Your task to perform on an android device: Open Reddit.com Image 0: 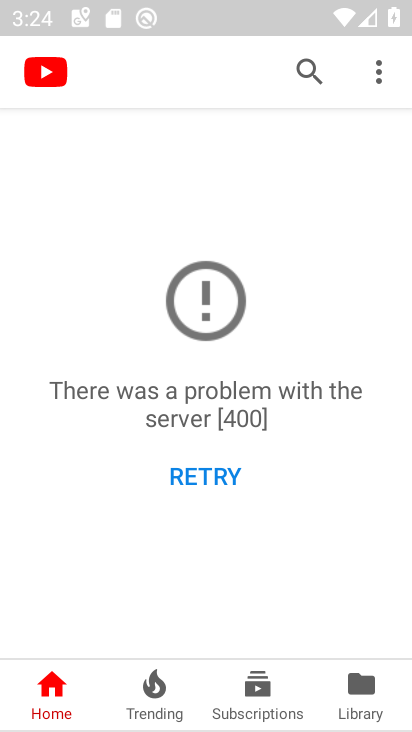
Step 0: press back button
Your task to perform on an android device: Open Reddit.com Image 1: 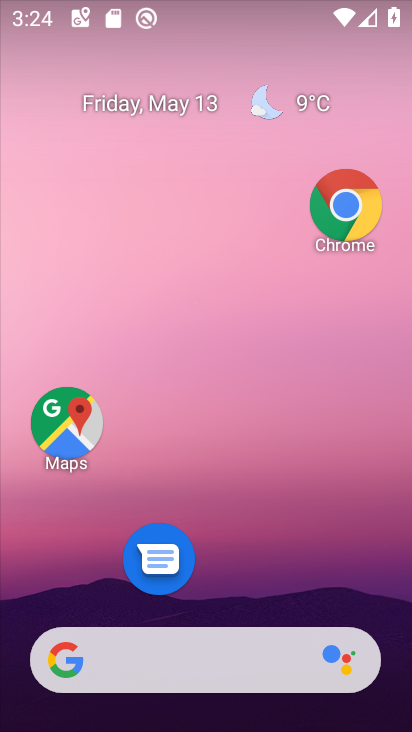
Step 1: click (345, 207)
Your task to perform on an android device: Open Reddit.com Image 2: 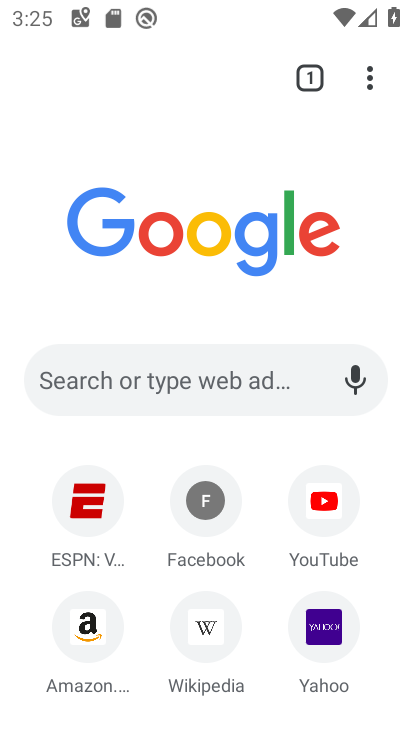
Step 2: click (147, 366)
Your task to perform on an android device: Open Reddit.com Image 3: 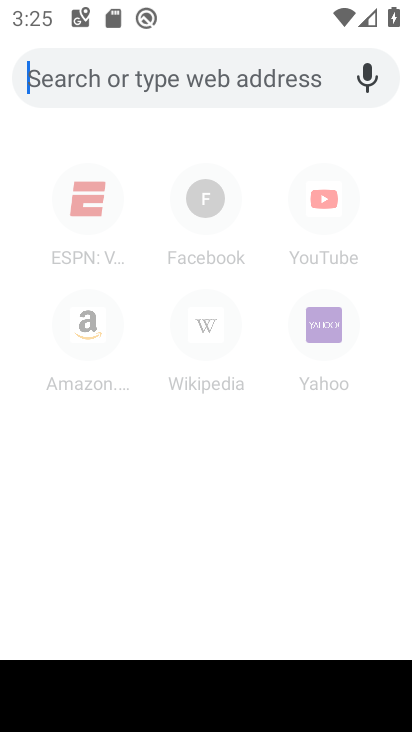
Step 3: type "reddit.com"
Your task to perform on an android device: Open Reddit.com Image 4: 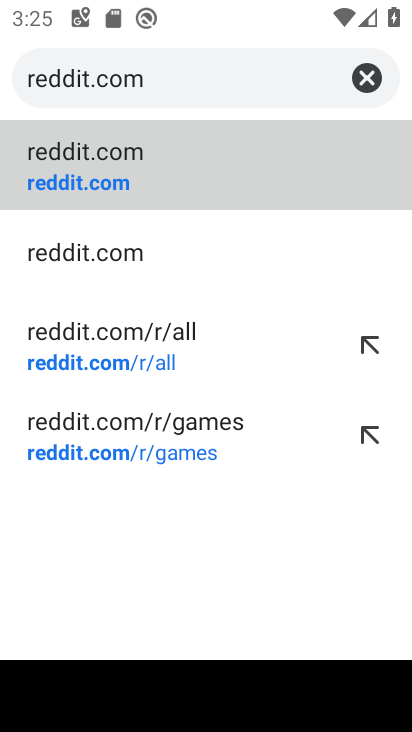
Step 4: click (233, 199)
Your task to perform on an android device: Open Reddit.com Image 5: 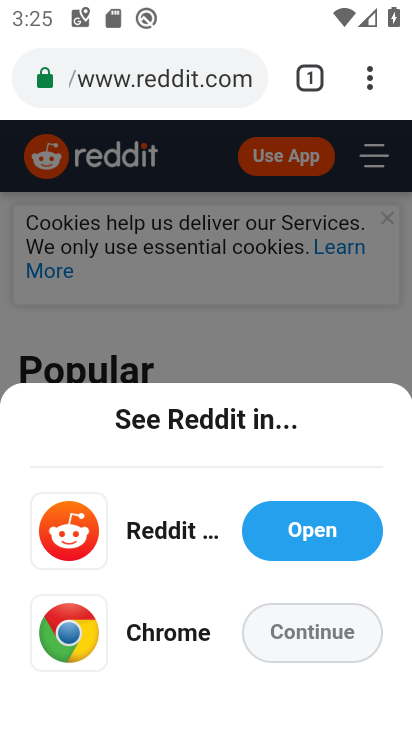
Step 5: task complete